Your task to perform on an android device: toggle location history Image 0: 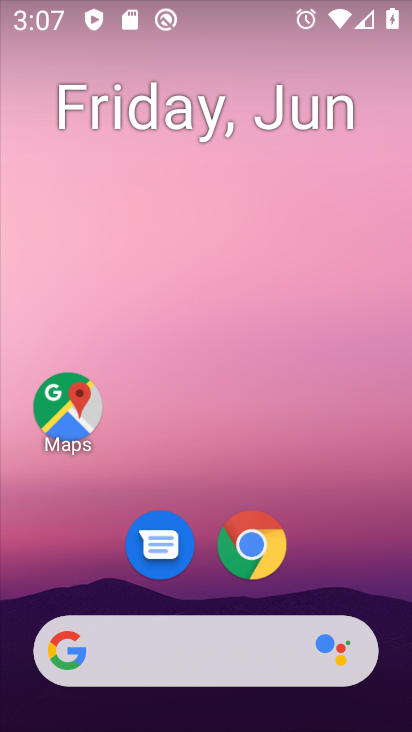
Step 0: drag from (334, 541) to (342, 0)
Your task to perform on an android device: toggle location history Image 1: 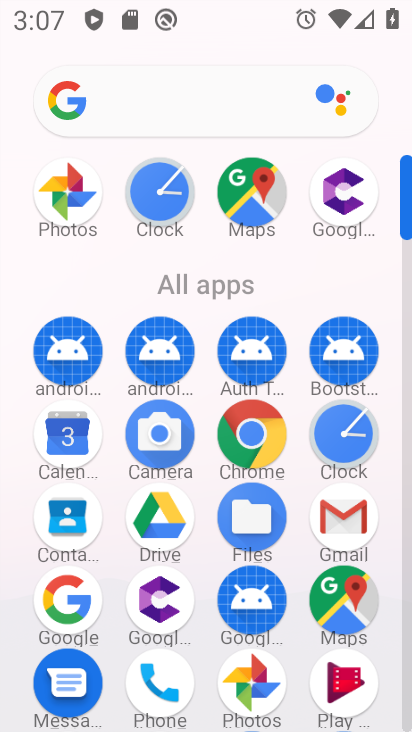
Step 1: drag from (194, 570) to (302, 155)
Your task to perform on an android device: toggle location history Image 2: 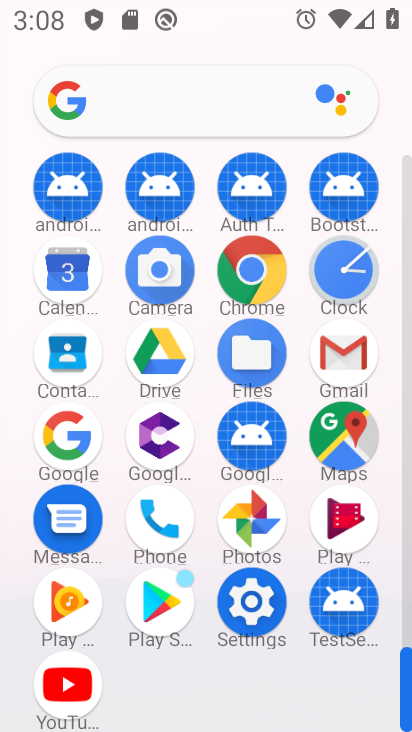
Step 2: click (260, 589)
Your task to perform on an android device: toggle location history Image 3: 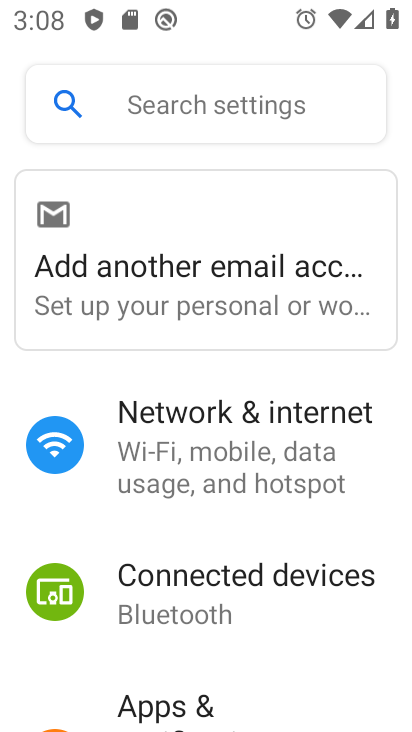
Step 3: drag from (209, 650) to (233, 279)
Your task to perform on an android device: toggle location history Image 4: 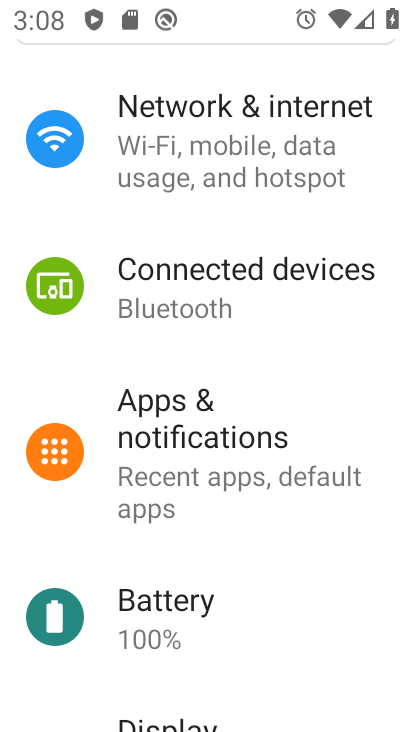
Step 4: drag from (275, 365) to (351, 728)
Your task to perform on an android device: toggle location history Image 5: 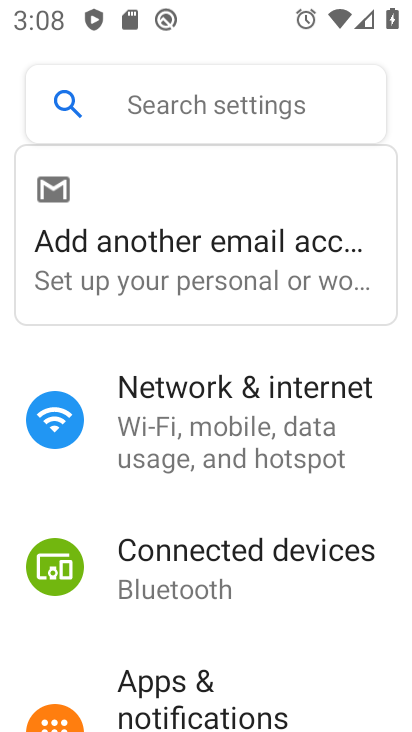
Step 5: drag from (244, 610) to (330, 27)
Your task to perform on an android device: toggle location history Image 6: 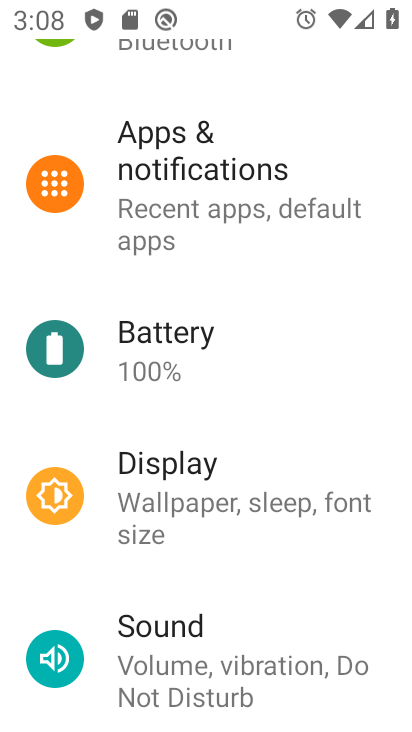
Step 6: drag from (214, 584) to (253, 73)
Your task to perform on an android device: toggle location history Image 7: 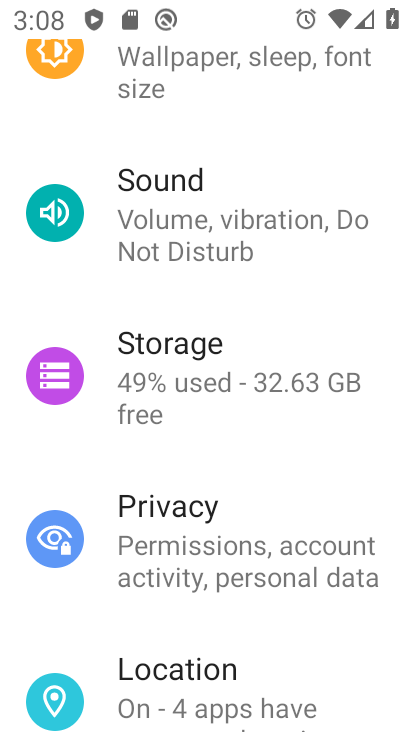
Step 7: click (147, 685)
Your task to perform on an android device: toggle location history Image 8: 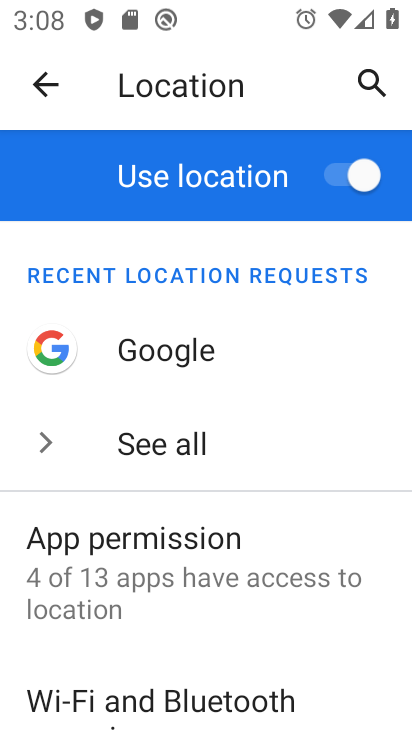
Step 8: drag from (212, 666) to (309, 328)
Your task to perform on an android device: toggle location history Image 9: 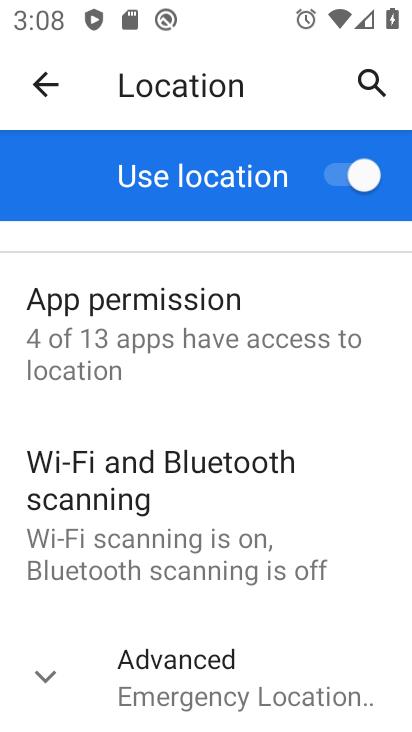
Step 9: click (216, 663)
Your task to perform on an android device: toggle location history Image 10: 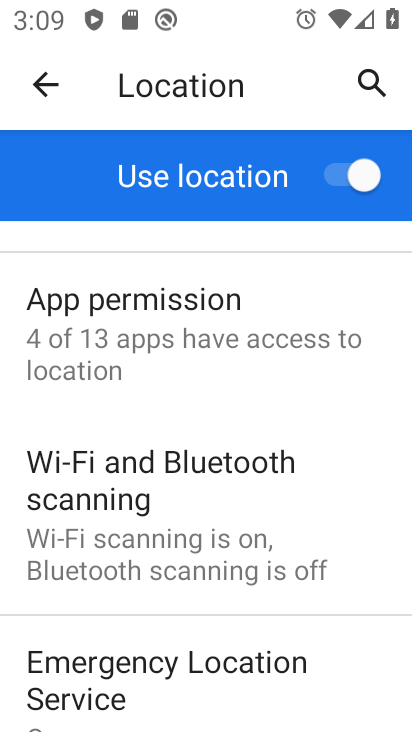
Step 10: drag from (190, 601) to (284, 28)
Your task to perform on an android device: toggle location history Image 11: 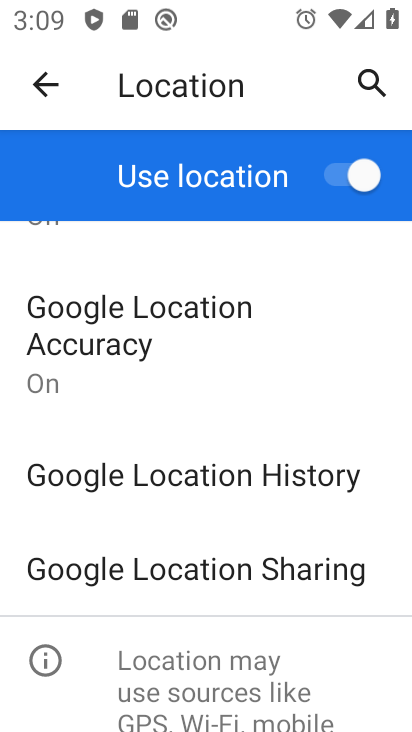
Step 11: click (264, 480)
Your task to perform on an android device: toggle location history Image 12: 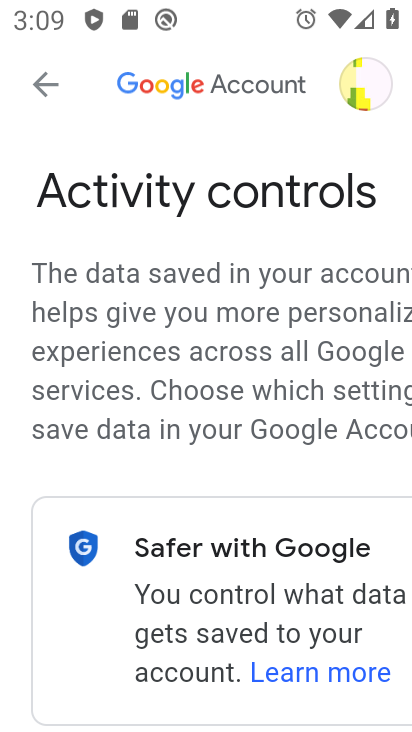
Step 12: drag from (269, 663) to (377, 134)
Your task to perform on an android device: toggle location history Image 13: 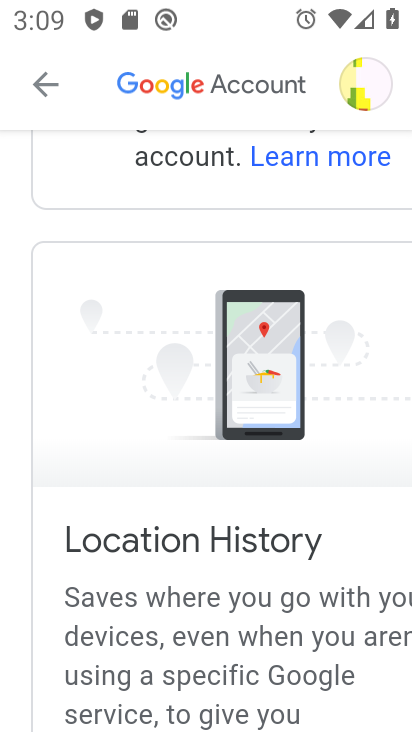
Step 13: drag from (312, 607) to (400, 46)
Your task to perform on an android device: toggle location history Image 14: 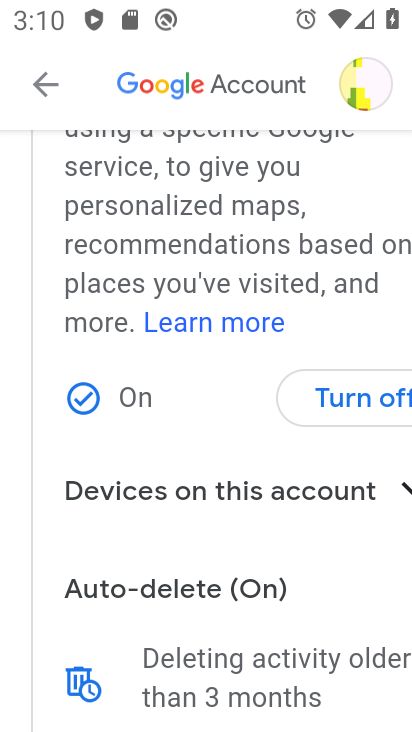
Step 14: drag from (270, 598) to (268, 408)
Your task to perform on an android device: toggle location history Image 15: 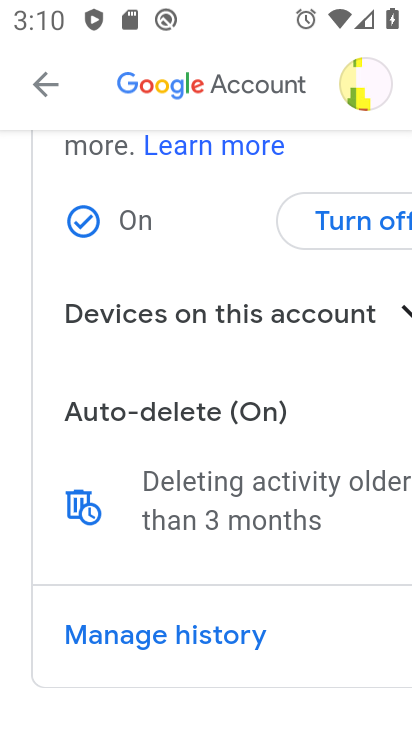
Step 15: click (376, 204)
Your task to perform on an android device: toggle location history Image 16: 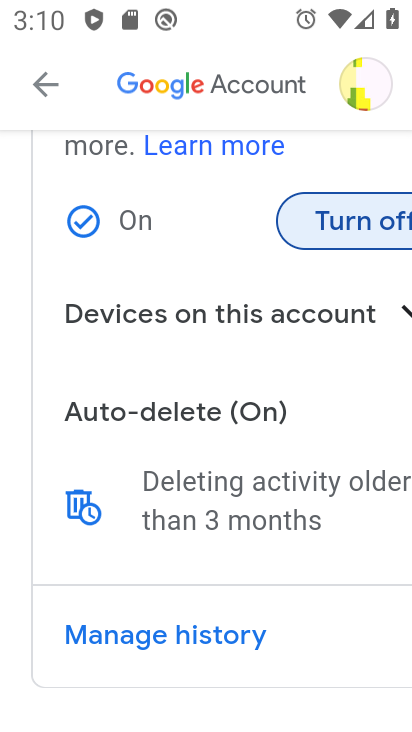
Step 16: click (379, 224)
Your task to perform on an android device: toggle location history Image 17: 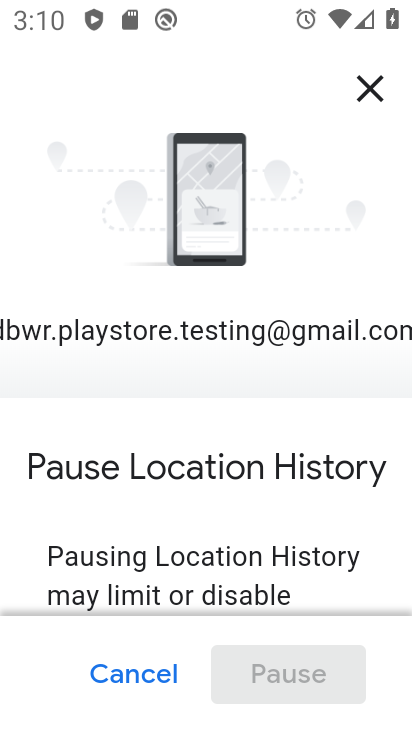
Step 17: drag from (259, 557) to (394, 15)
Your task to perform on an android device: toggle location history Image 18: 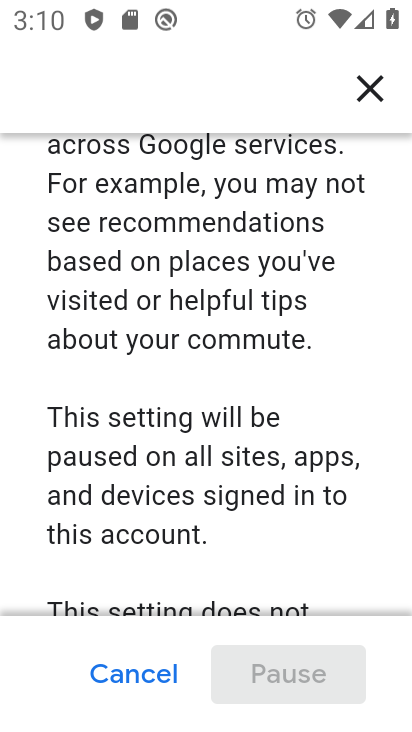
Step 18: drag from (224, 568) to (359, 6)
Your task to perform on an android device: toggle location history Image 19: 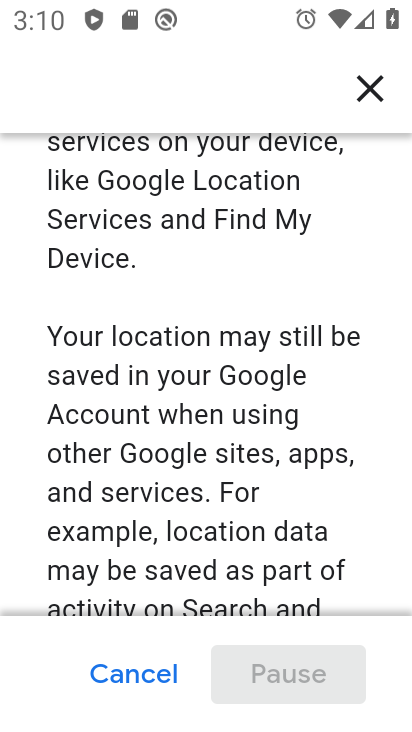
Step 19: drag from (281, 459) to (320, 12)
Your task to perform on an android device: toggle location history Image 20: 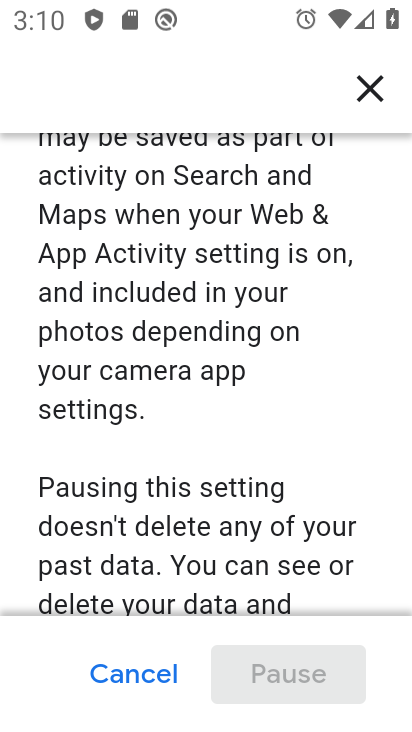
Step 20: drag from (313, 561) to (408, 249)
Your task to perform on an android device: toggle location history Image 21: 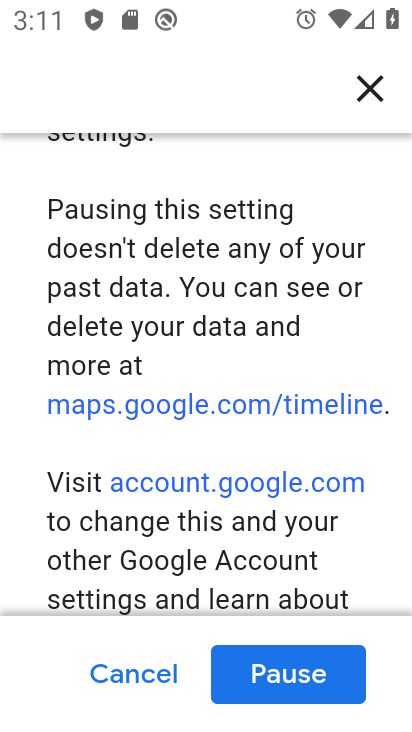
Step 21: click (283, 674)
Your task to perform on an android device: toggle location history Image 22: 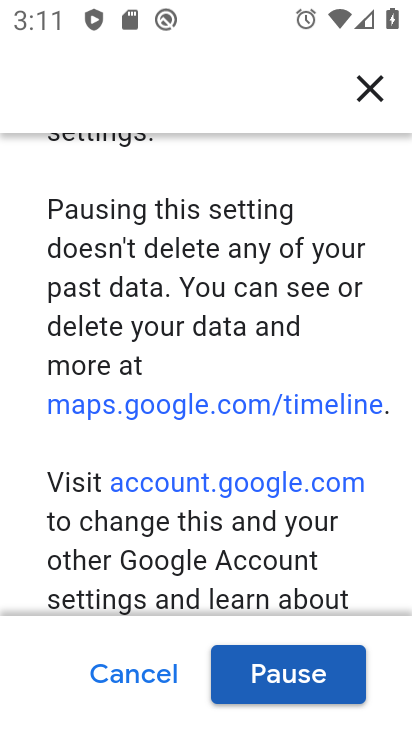
Step 22: click (262, 689)
Your task to perform on an android device: toggle location history Image 23: 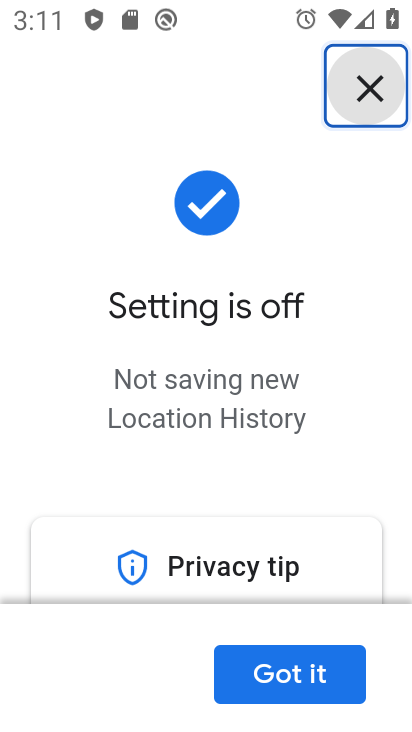
Step 23: click (314, 687)
Your task to perform on an android device: toggle location history Image 24: 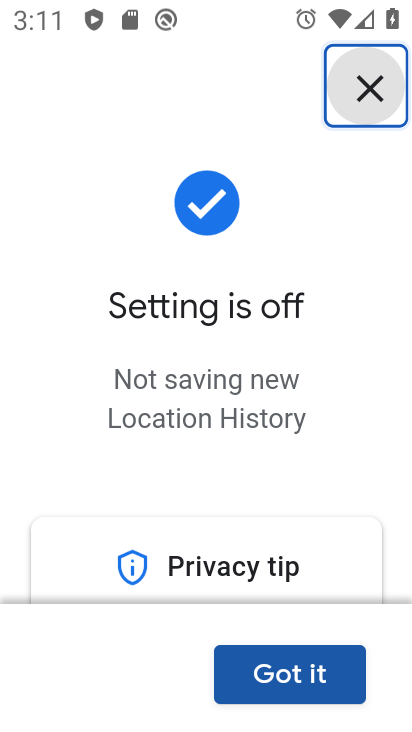
Step 24: task complete